Your task to perform on an android device: toggle priority inbox in the gmail app Image 0: 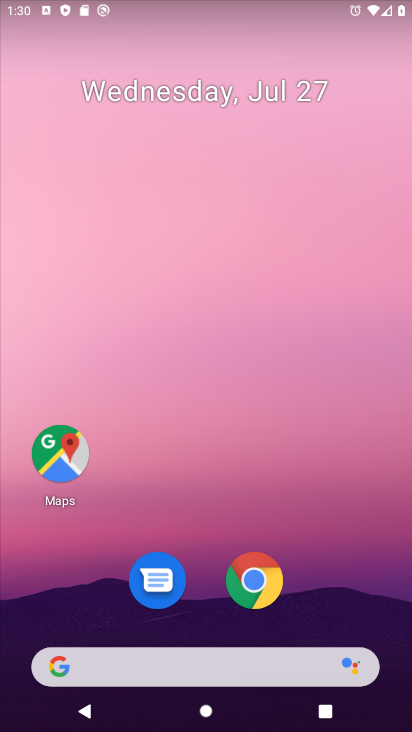
Step 0: click (252, 580)
Your task to perform on an android device: toggle priority inbox in the gmail app Image 1: 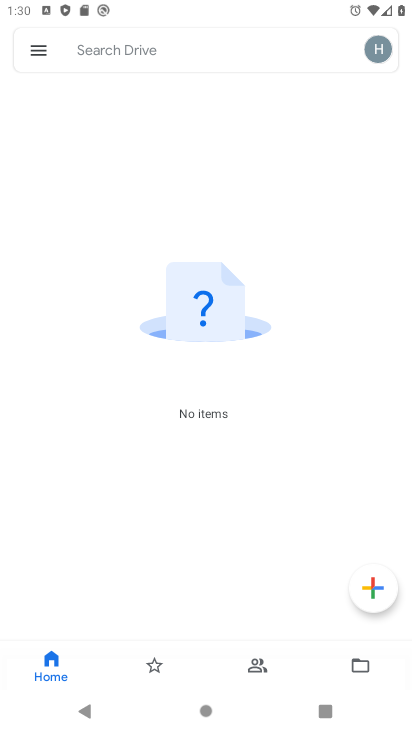
Step 1: press home button
Your task to perform on an android device: toggle priority inbox in the gmail app Image 2: 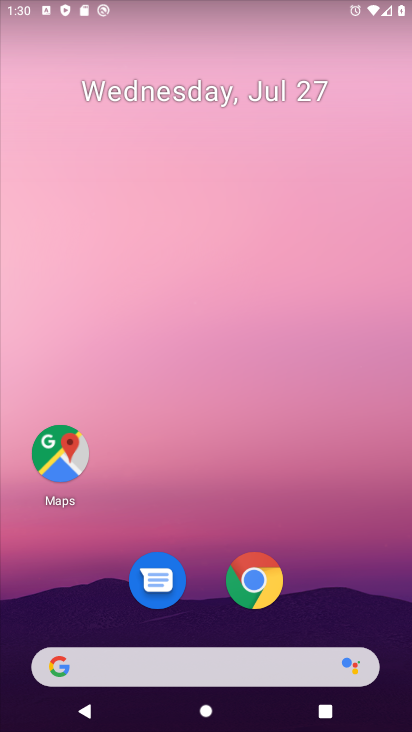
Step 2: drag from (291, 631) to (322, 278)
Your task to perform on an android device: toggle priority inbox in the gmail app Image 3: 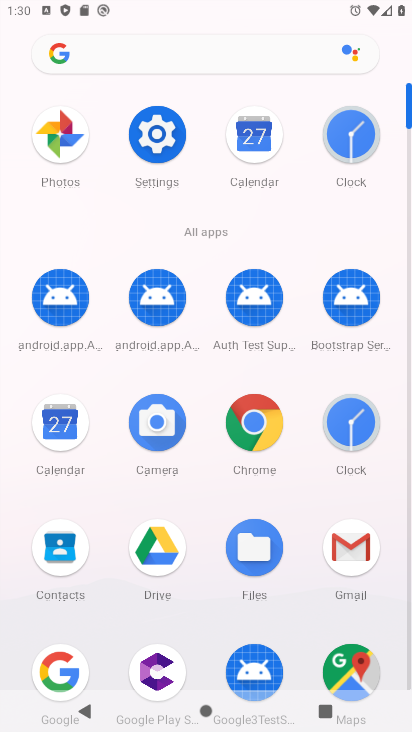
Step 3: click (345, 557)
Your task to perform on an android device: toggle priority inbox in the gmail app Image 4: 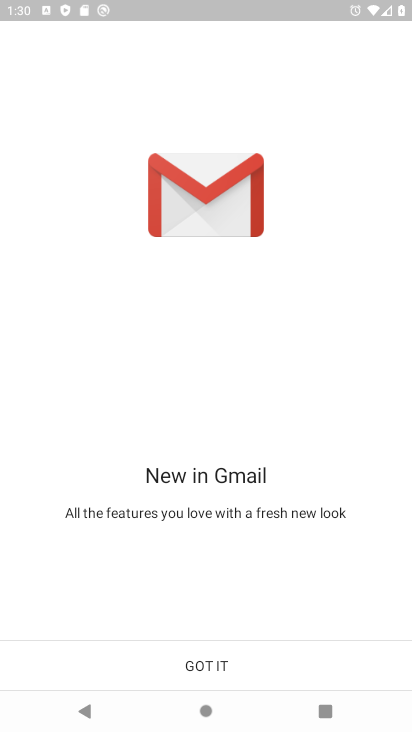
Step 4: click (214, 668)
Your task to perform on an android device: toggle priority inbox in the gmail app Image 5: 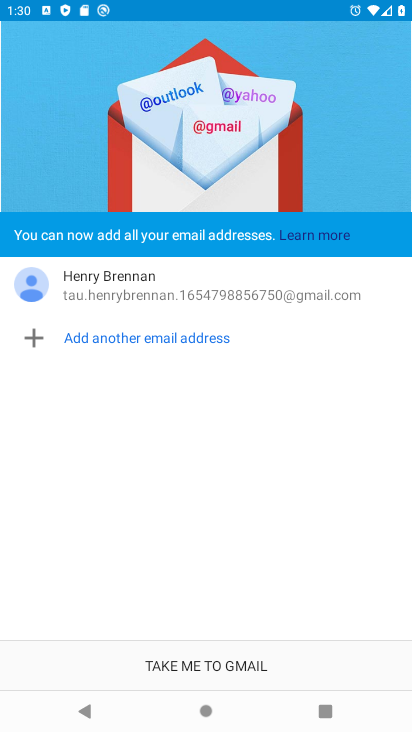
Step 5: click (215, 653)
Your task to perform on an android device: toggle priority inbox in the gmail app Image 6: 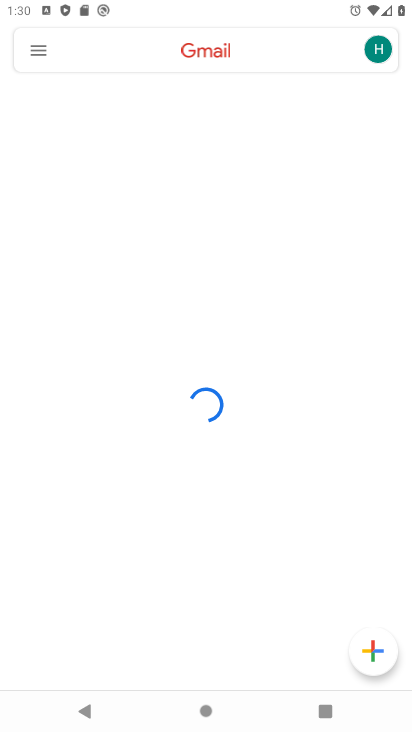
Step 6: click (31, 55)
Your task to perform on an android device: toggle priority inbox in the gmail app Image 7: 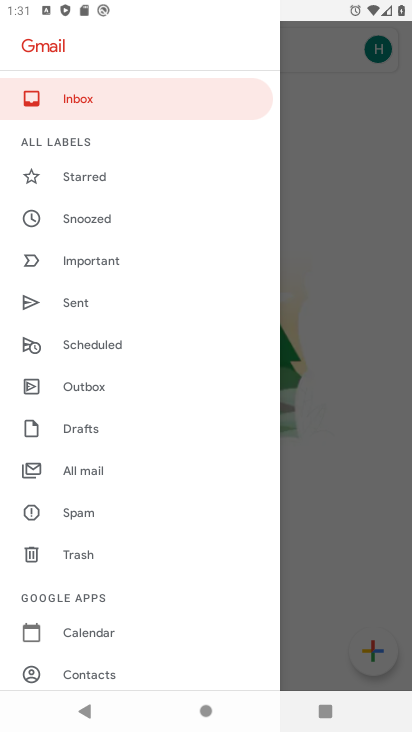
Step 7: drag from (96, 533) to (154, 412)
Your task to perform on an android device: toggle priority inbox in the gmail app Image 8: 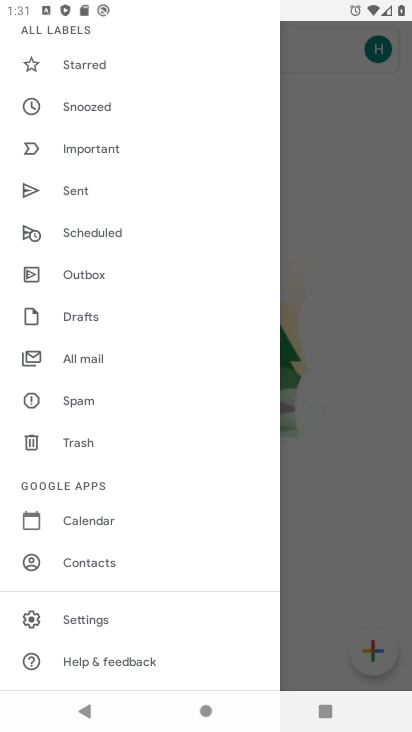
Step 8: click (85, 612)
Your task to perform on an android device: toggle priority inbox in the gmail app Image 9: 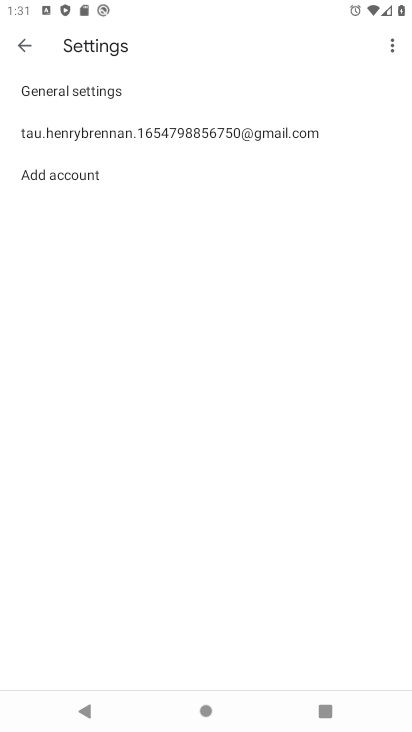
Step 9: click (127, 136)
Your task to perform on an android device: toggle priority inbox in the gmail app Image 10: 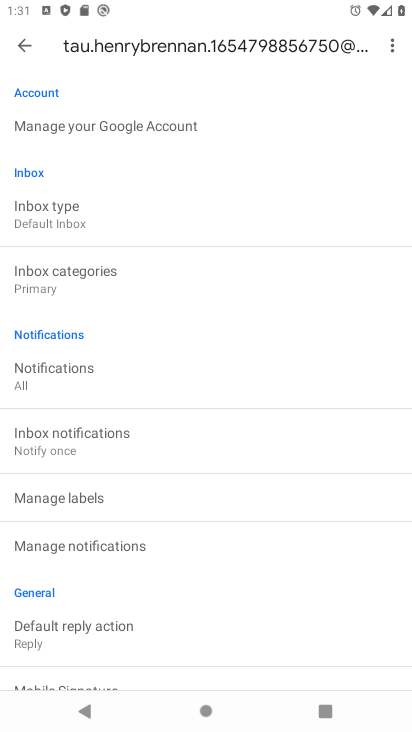
Step 10: drag from (117, 589) to (183, 469)
Your task to perform on an android device: toggle priority inbox in the gmail app Image 11: 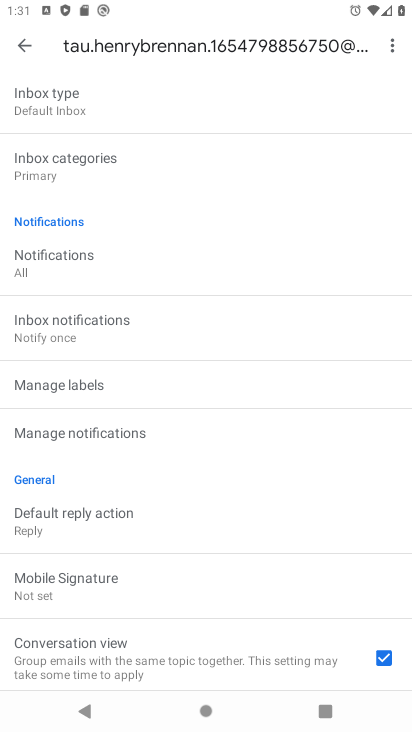
Step 11: drag from (100, 581) to (144, 352)
Your task to perform on an android device: toggle priority inbox in the gmail app Image 12: 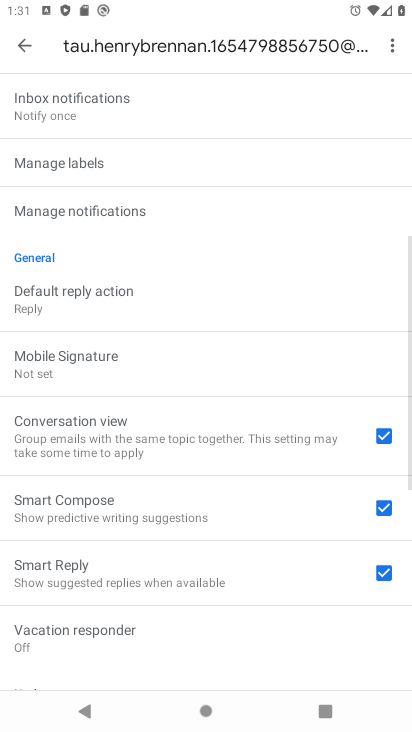
Step 12: drag from (97, 163) to (90, 724)
Your task to perform on an android device: toggle priority inbox in the gmail app Image 13: 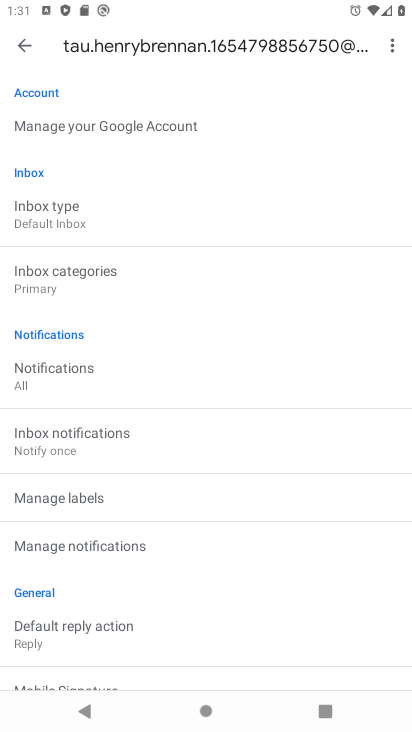
Step 13: click (55, 219)
Your task to perform on an android device: toggle priority inbox in the gmail app Image 14: 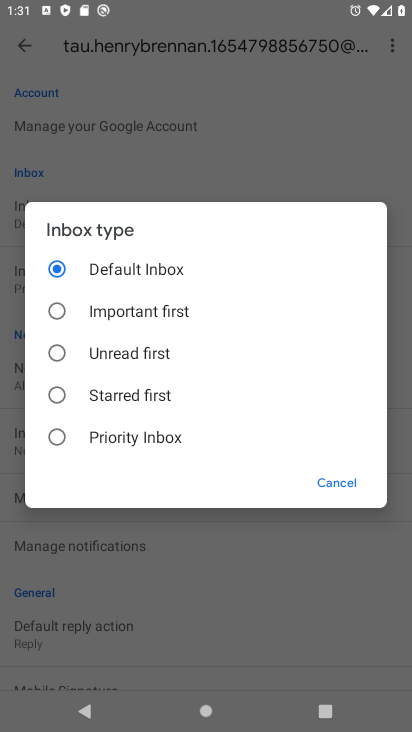
Step 14: click (115, 440)
Your task to perform on an android device: toggle priority inbox in the gmail app Image 15: 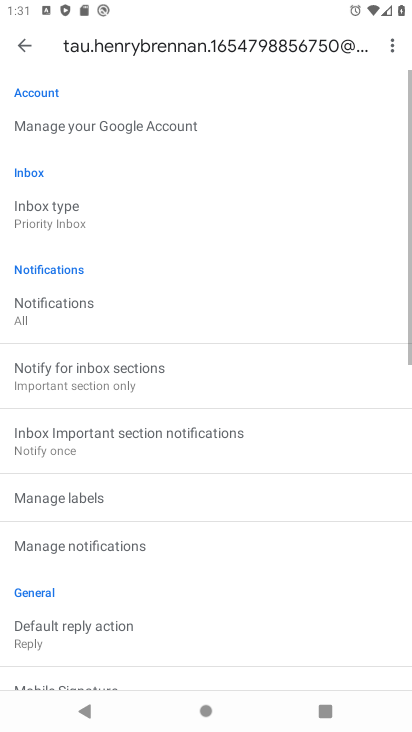
Step 15: click (76, 202)
Your task to perform on an android device: toggle priority inbox in the gmail app Image 16: 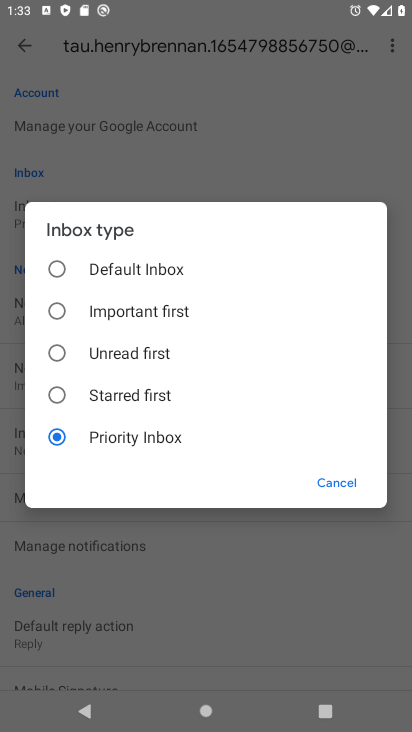
Step 16: task complete